Your task to perform on an android device: change the clock display to digital Image 0: 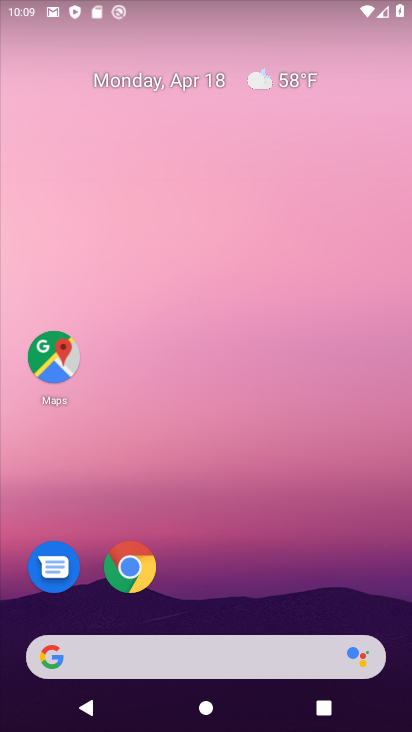
Step 0: drag from (205, 722) to (205, 43)
Your task to perform on an android device: change the clock display to digital Image 1: 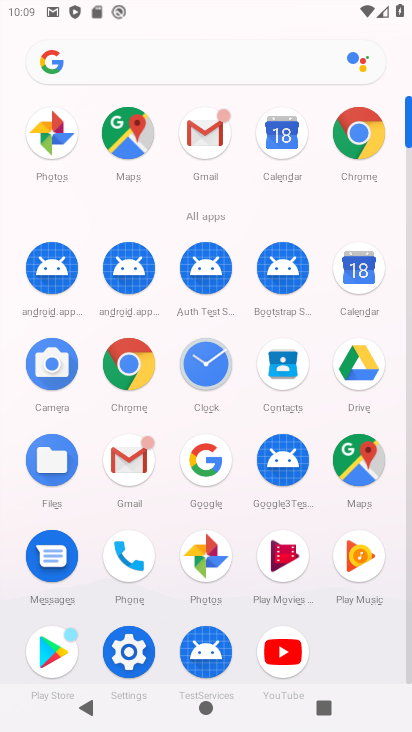
Step 1: click (211, 365)
Your task to perform on an android device: change the clock display to digital Image 2: 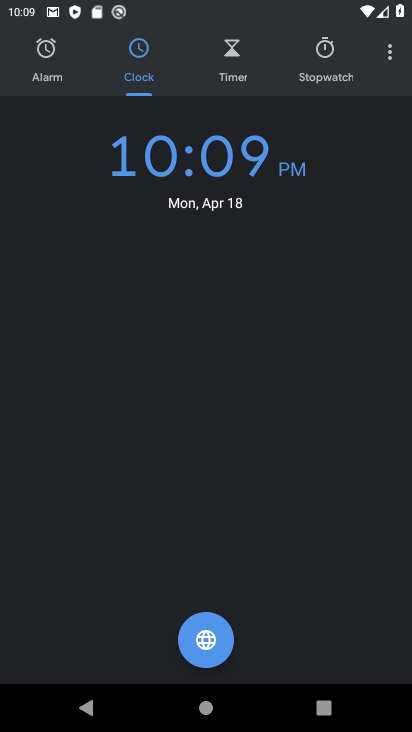
Step 2: click (391, 53)
Your task to perform on an android device: change the clock display to digital Image 3: 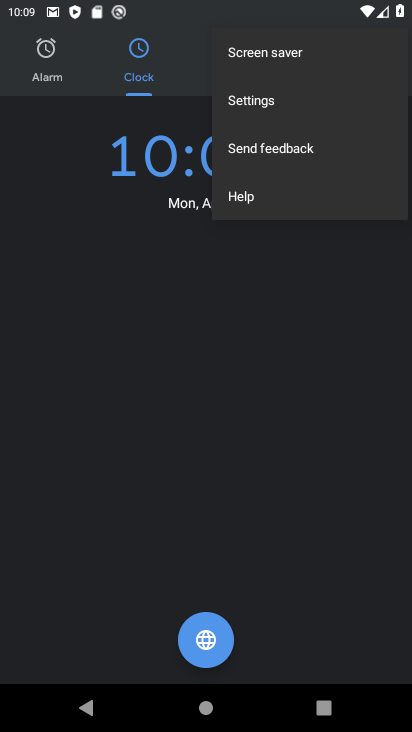
Step 3: click (249, 97)
Your task to perform on an android device: change the clock display to digital Image 4: 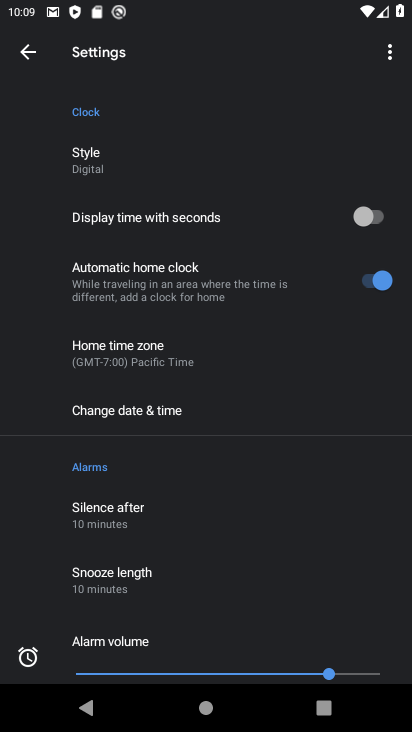
Step 4: click (90, 163)
Your task to perform on an android device: change the clock display to digital Image 5: 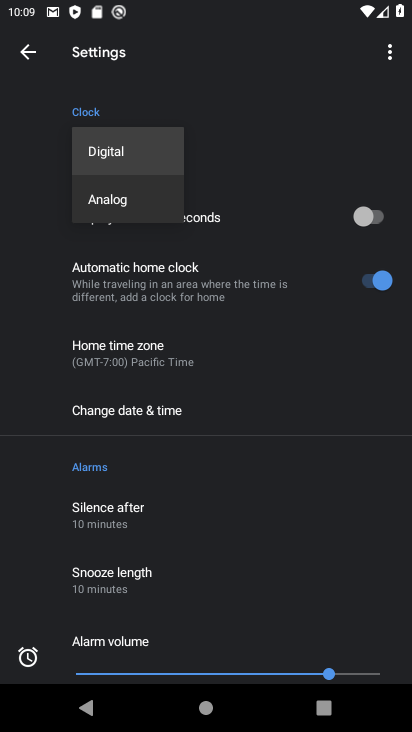
Step 5: click (105, 153)
Your task to perform on an android device: change the clock display to digital Image 6: 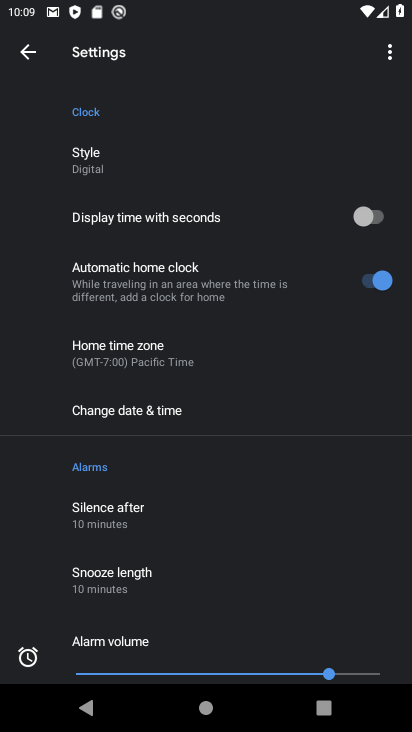
Step 6: task complete